Your task to perform on an android device: all mails in gmail Image 0: 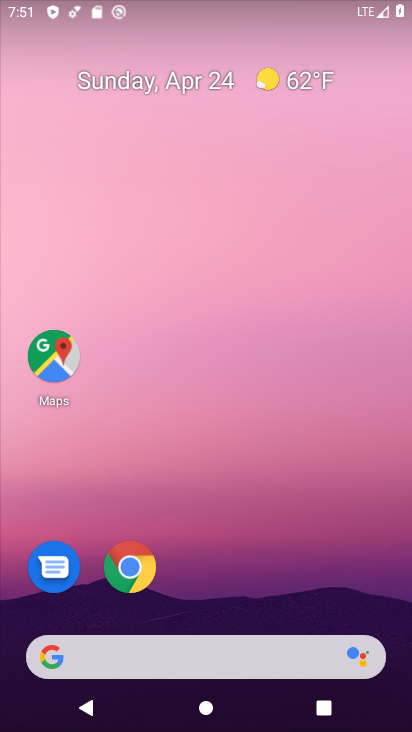
Step 0: drag from (253, 554) to (242, 118)
Your task to perform on an android device: all mails in gmail Image 1: 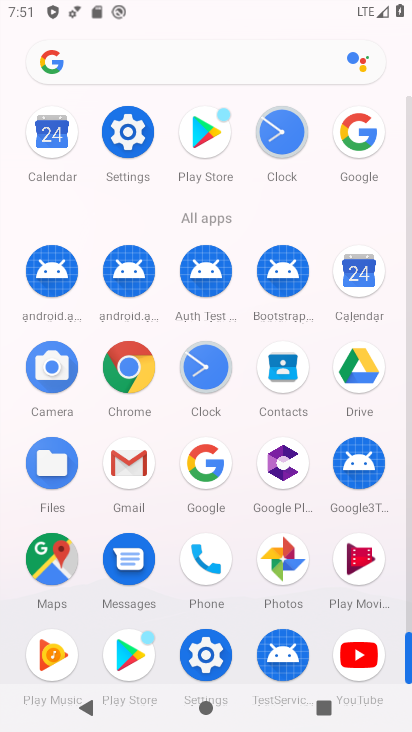
Step 1: click (127, 464)
Your task to perform on an android device: all mails in gmail Image 2: 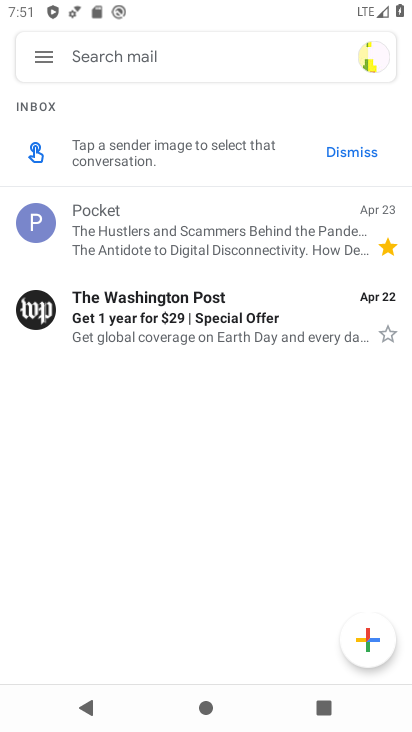
Step 2: click (44, 58)
Your task to perform on an android device: all mails in gmail Image 3: 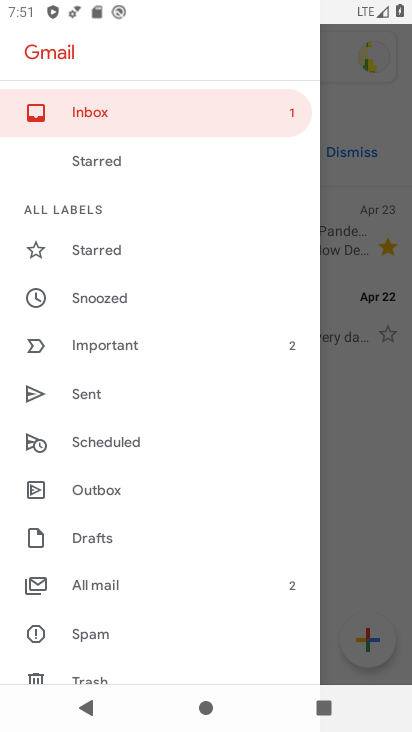
Step 3: click (116, 589)
Your task to perform on an android device: all mails in gmail Image 4: 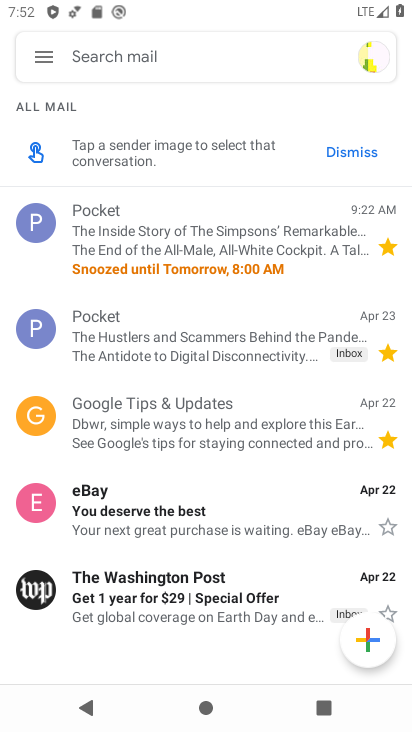
Step 4: task complete